Your task to perform on an android device: check battery use Image 0: 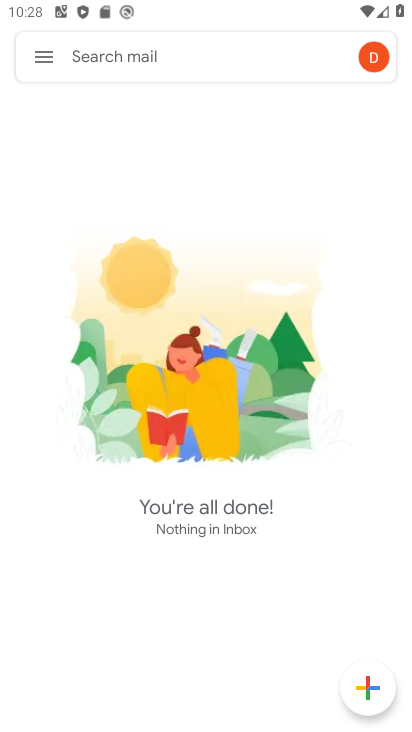
Step 0: press home button
Your task to perform on an android device: check battery use Image 1: 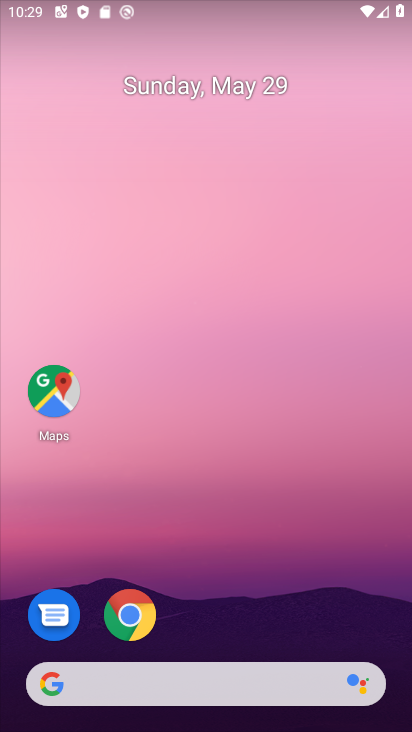
Step 1: drag from (220, 648) to (176, 0)
Your task to perform on an android device: check battery use Image 2: 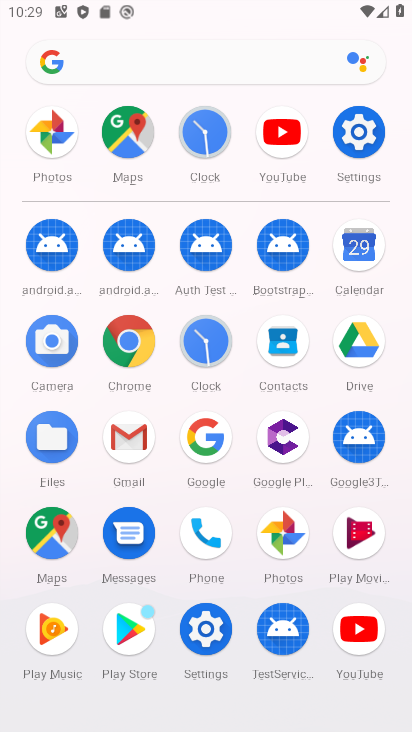
Step 2: click (207, 630)
Your task to perform on an android device: check battery use Image 3: 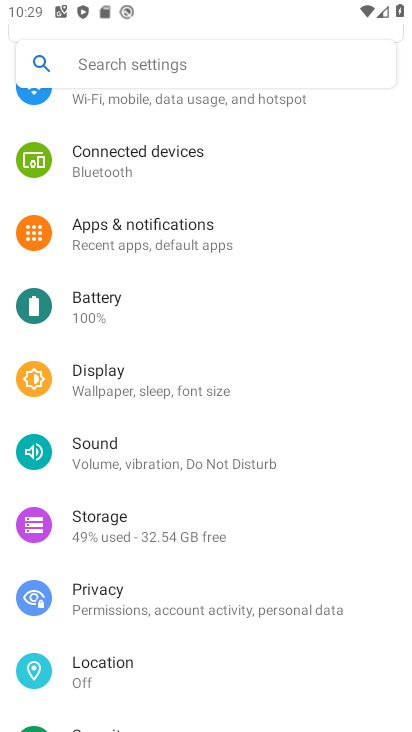
Step 3: click (106, 312)
Your task to perform on an android device: check battery use Image 4: 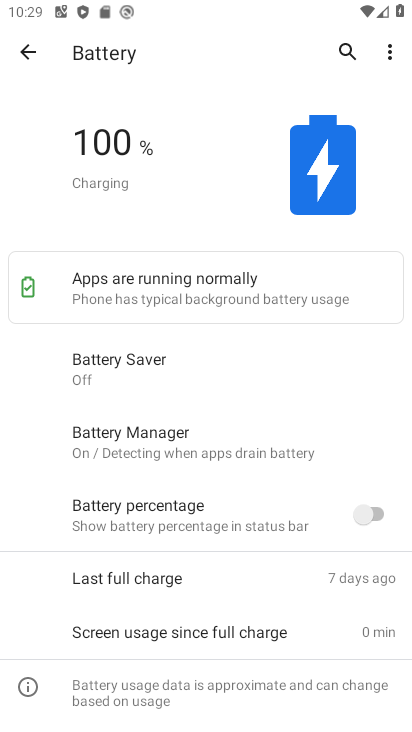
Step 4: task complete